Your task to perform on an android device: change notification settings in the gmail app Image 0: 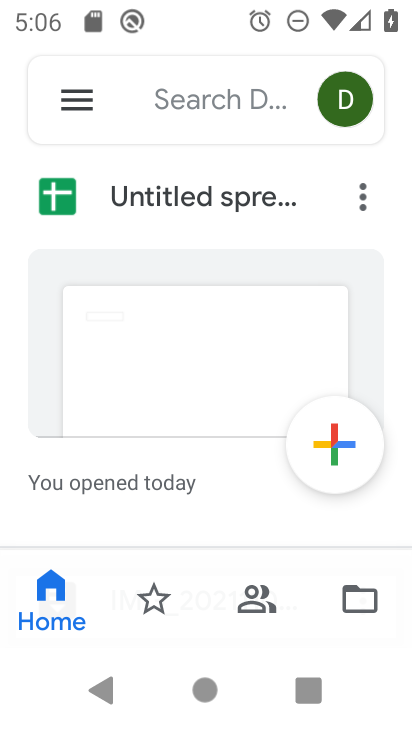
Step 0: press home button
Your task to perform on an android device: change notification settings in the gmail app Image 1: 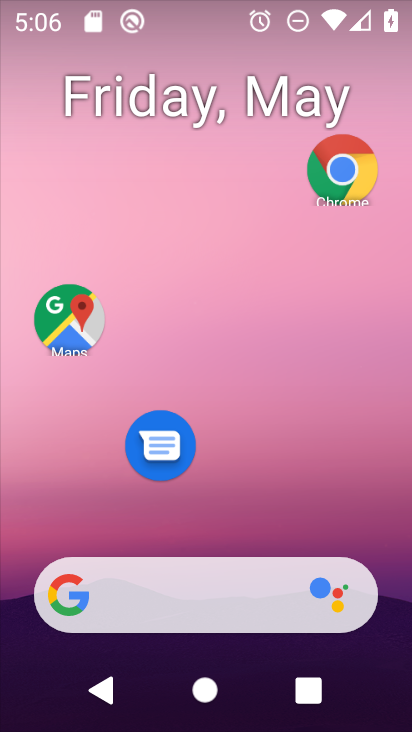
Step 1: drag from (195, 522) to (258, 2)
Your task to perform on an android device: change notification settings in the gmail app Image 2: 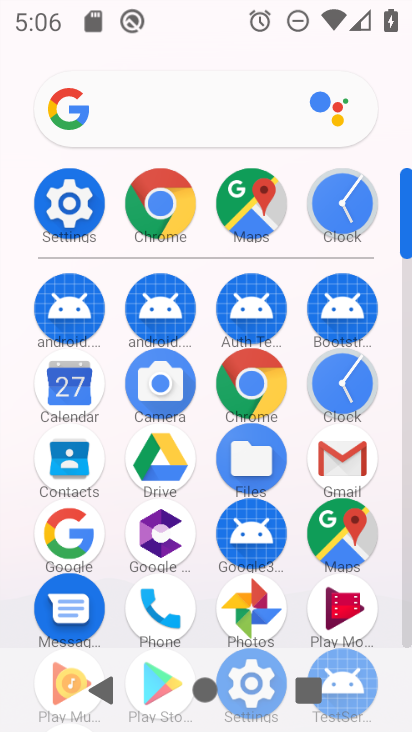
Step 2: click (336, 456)
Your task to perform on an android device: change notification settings in the gmail app Image 3: 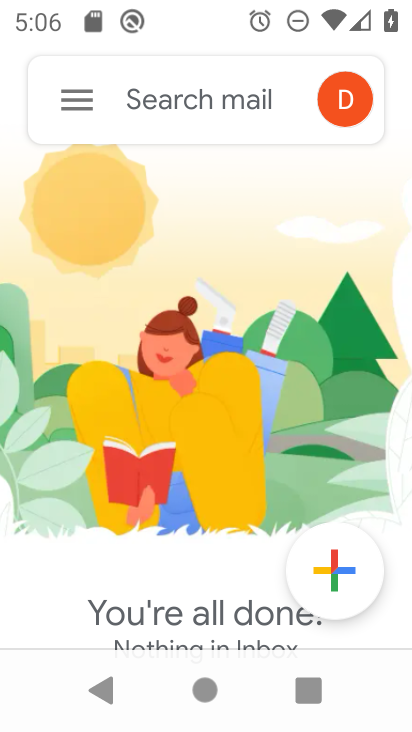
Step 3: click (72, 94)
Your task to perform on an android device: change notification settings in the gmail app Image 4: 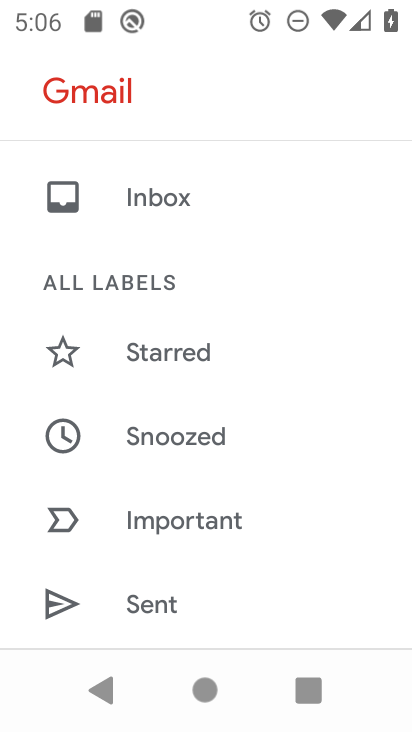
Step 4: drag from (206, 533) to (254, 148)
Your task to perform on an android device: change notification settings in the gmail app Image 5: 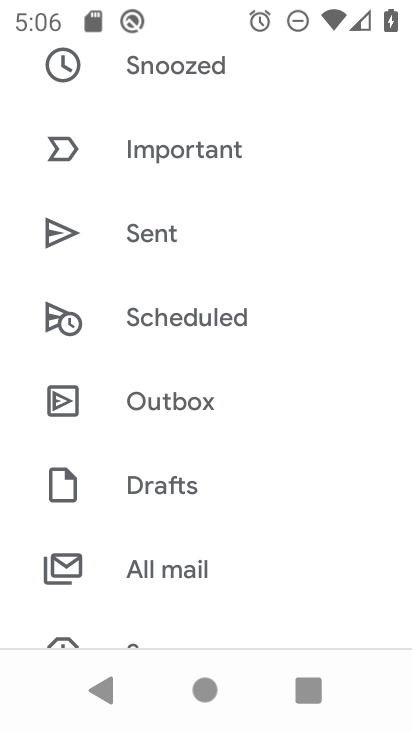
Step 5: drag from (209, 588) to (244, 220)
Your task to perform on an android device: change notification settings in the gmail app Image 6: 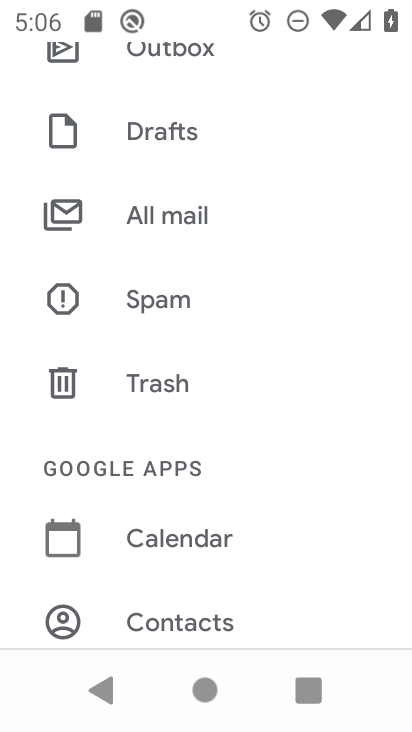
Step 6: click (245, 133)
Your task to perform on an android device: change notification settings in the gmail app Image 7: 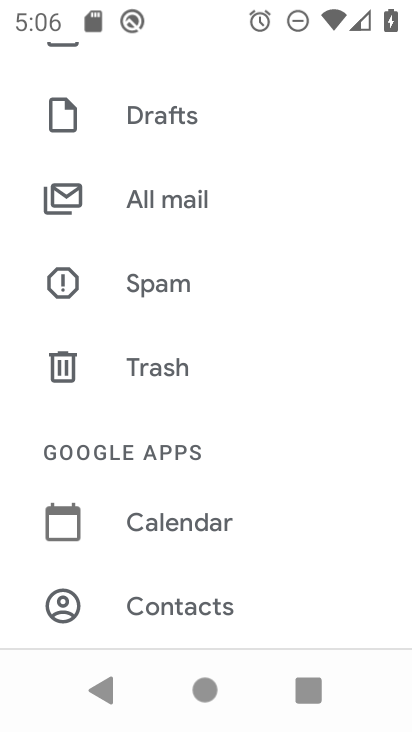
Step 7: drag from (189, 558) to (214, 159)
Your task to perform on an android device: change notification settings in the gmail app Image 8: 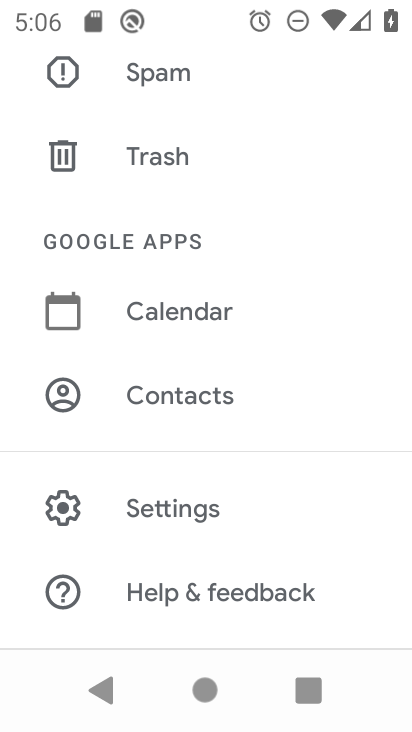
Step 8: click (179, 506)
Your task to perform on an android device: change notification settings in the gmail app Image 9: 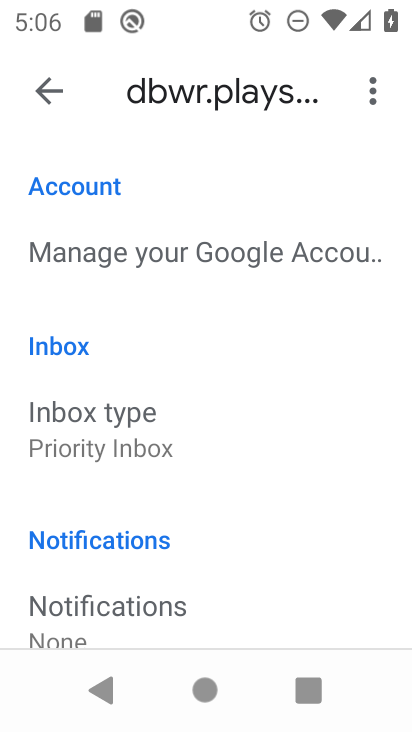
Step 9: drag from (189, 547) to (229, 300)
Your task to perform on an android device: change notification settings in the gmail app Image 10: 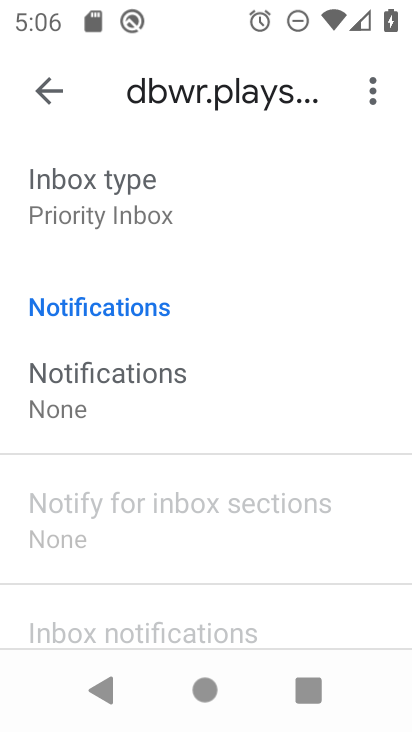
Step 10: click (121, 385)
Your task to perform on an android device: change notification settings in the gmail app Image 11: 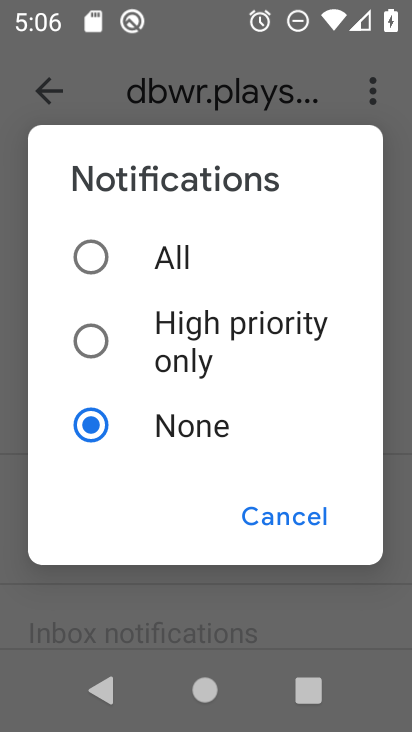
Step 11: click (88, 264)
Your task to perform on an android device: change notification settings in the gmail app Image 12: 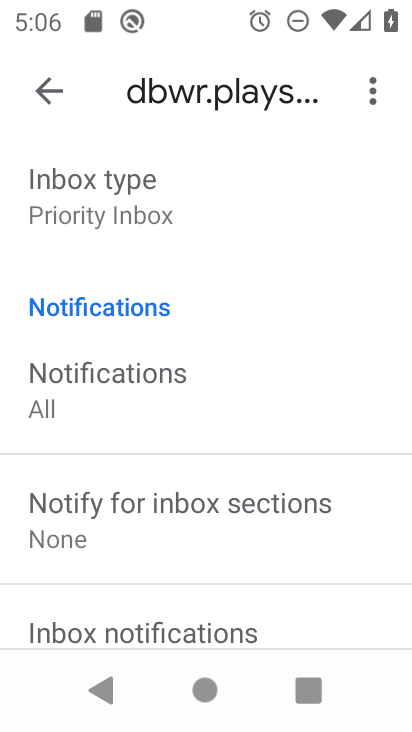
Step 12: task complete